Your task to perform on an android device: check battery use Image 0: 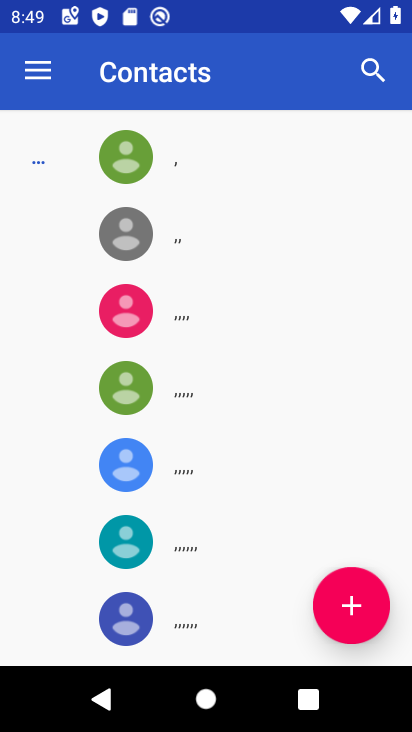
Step 0: press home button
Your task to perform on an android device: check battery use Image 1: 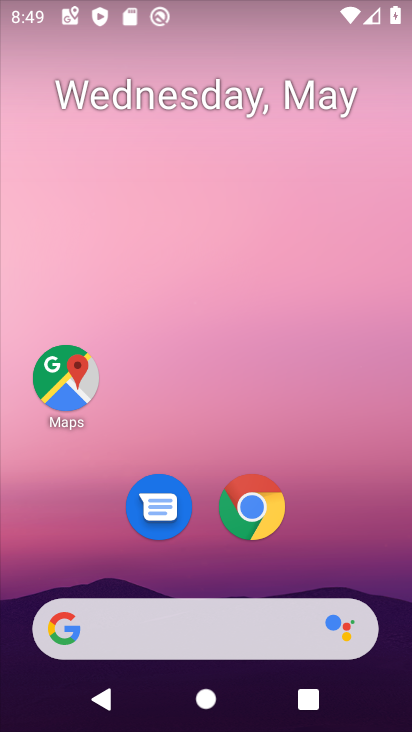
Step 1: drag from (368, 575) to (275, 210)
Your task to perform on an android device: check battery use Image 2: 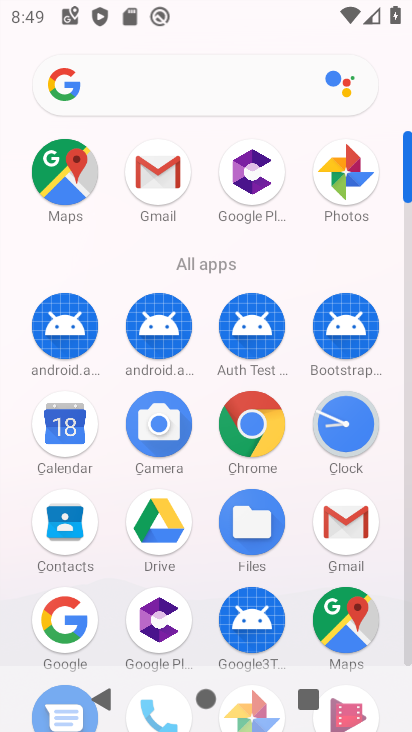
Step 2: click (410, 659)
Your task to perform on an android device: check battery use Image 3: 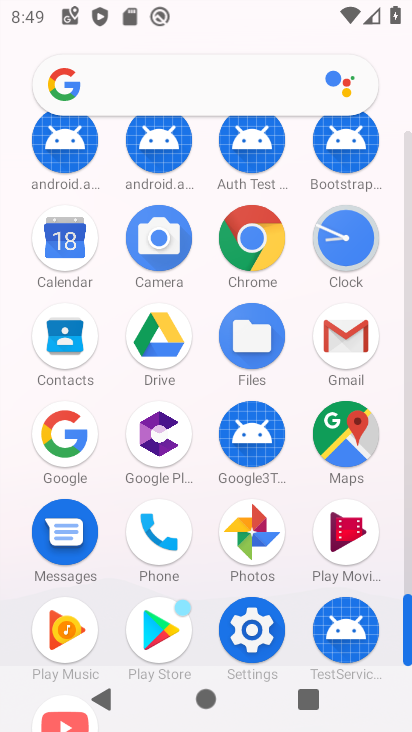
Step 3: click (253, 632)
Your task to perform on an android device: check battery use Image 4: 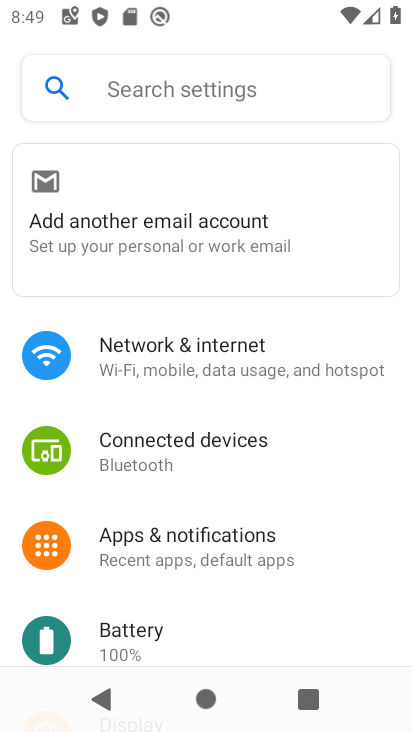
Step 4: click (253, 632)
Your task to perform on an android device: check battery use Image 5: 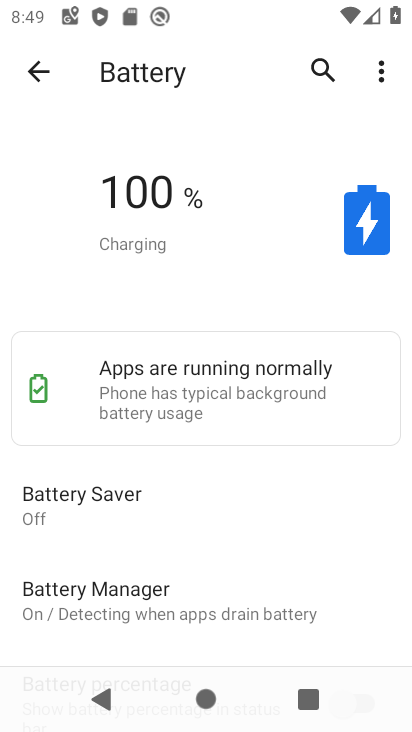
Step 5: task complete